Your task to perform on an android device: open a bookmark in the chrome app Image 0: 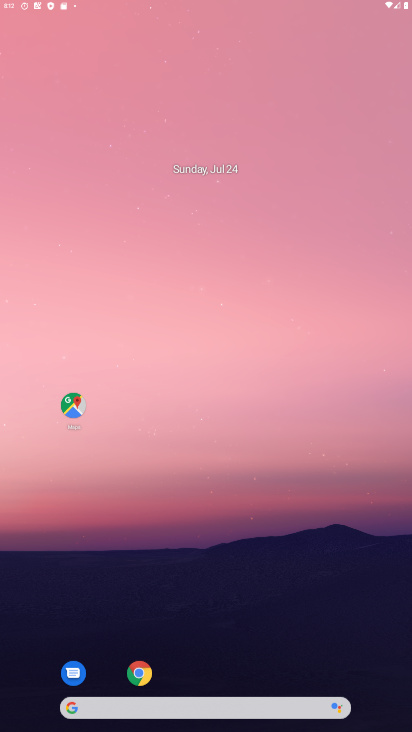
Step 0: drag from (209, 507) to (209, 262)
Your task to perform on an android device: open a bookmark in the chrome app Image 1: 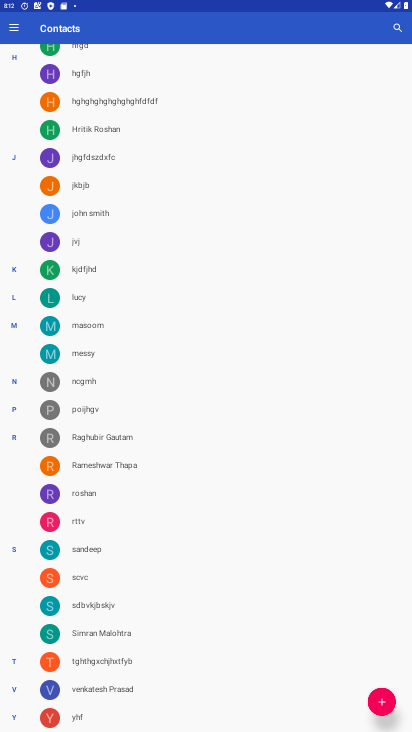
Step 1: drag from (234, 532) to (250, 331)
Your task to perform on an android device: open a bookmark in the chrome app Image 2: 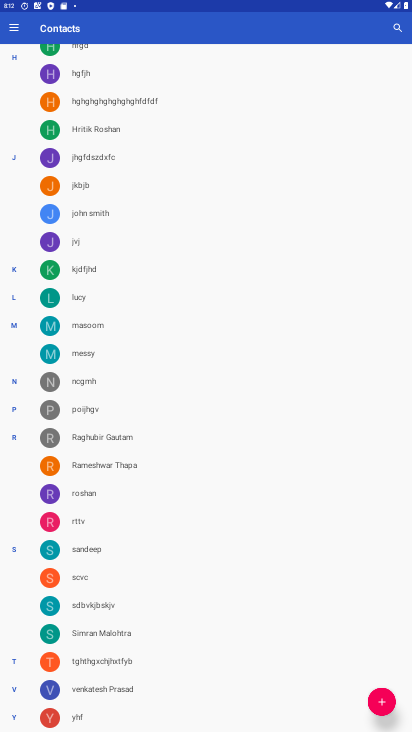
Step 2: press home button
Your task to perform on an android device: open a bookmark in the chrome app Image 3: 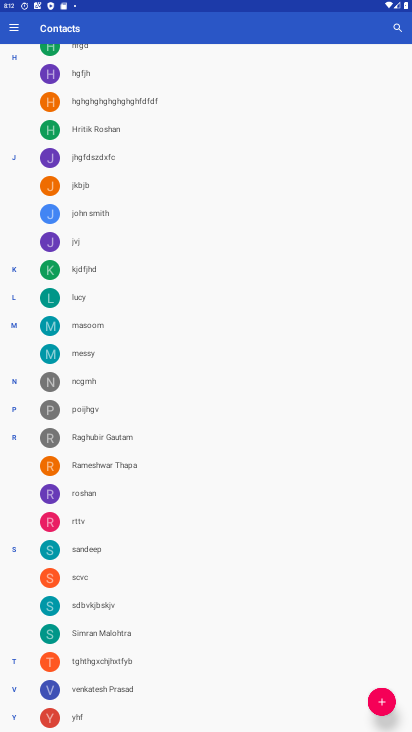
Step 3: press home button
Your task to perform on an android device: open a bookmark in the chrome app Image 4: 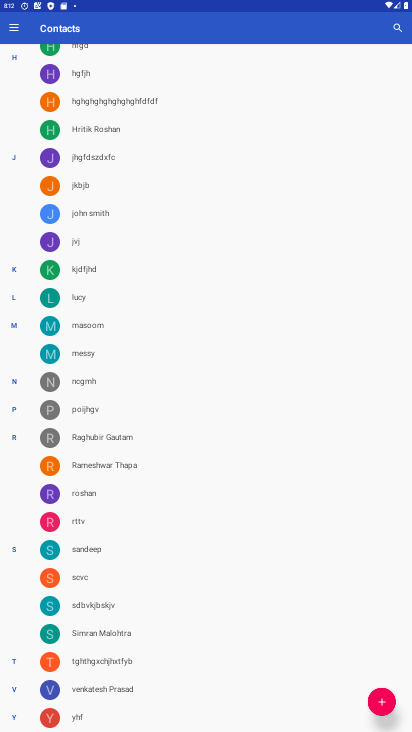
Step 4: drag from (277, 325) to (280, 282)
Your task to perform on an android device: open a bookmark in the chrome app Image 5: 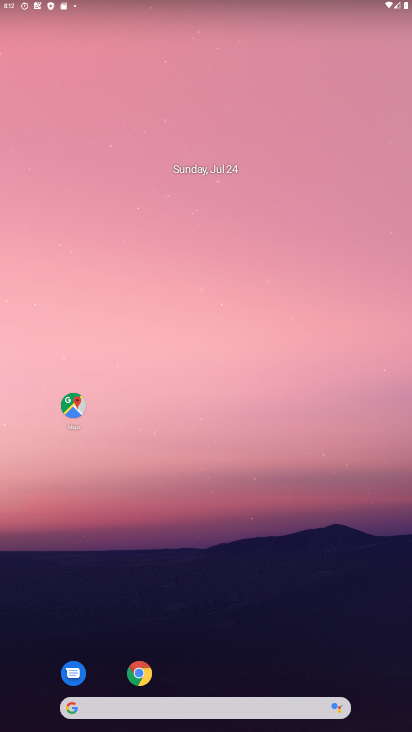
Step 5: drag from (171, 663) to (206, 225)
Your task to perform on an android device: open a bookmark in the chrome app Image 6: 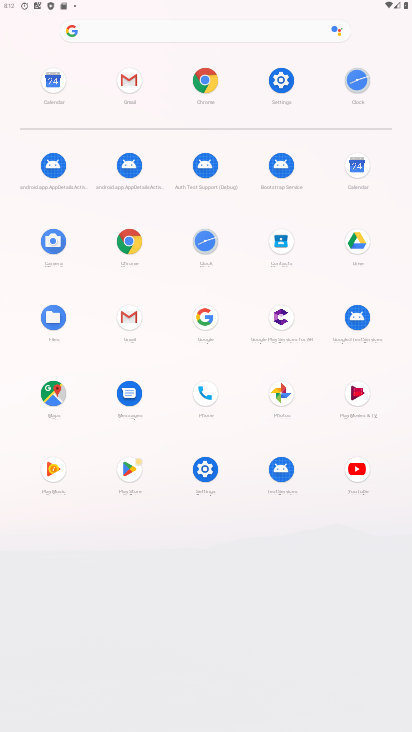
Step 6: drag from (242, 522) to (241, 304)
Your task to perform on an android device: open a bookmark in the chrome app Image 7: 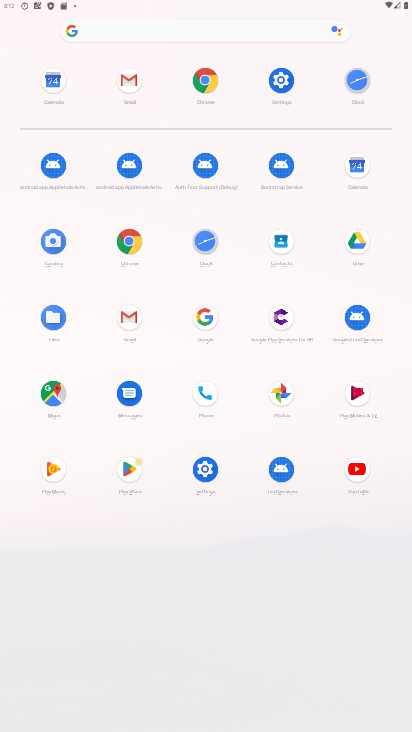
Step 7: drag from (247, 449) to (230, 310)
Your task to perform on an android device: open a bookmark in the chrome app Image 8: 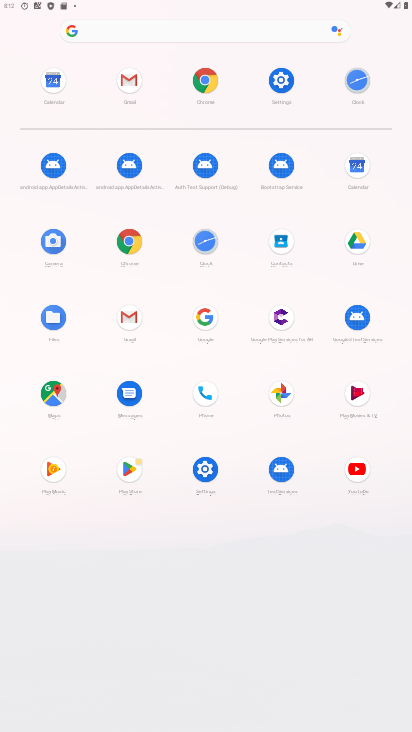
Step 8: drag from (207, 496) to (218, 411)
Your task to perform on an android device: open a bookmark in the chrome app Image 9: 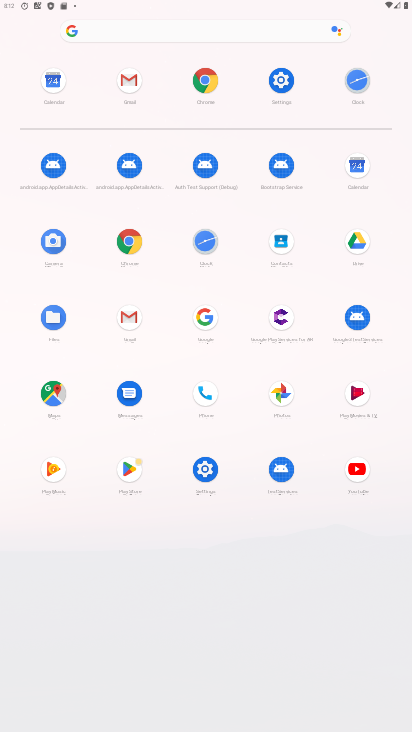
Step 9: click (132, 237)
Your task to perform on an android device: open a bookmark in the chrome app Image 10: 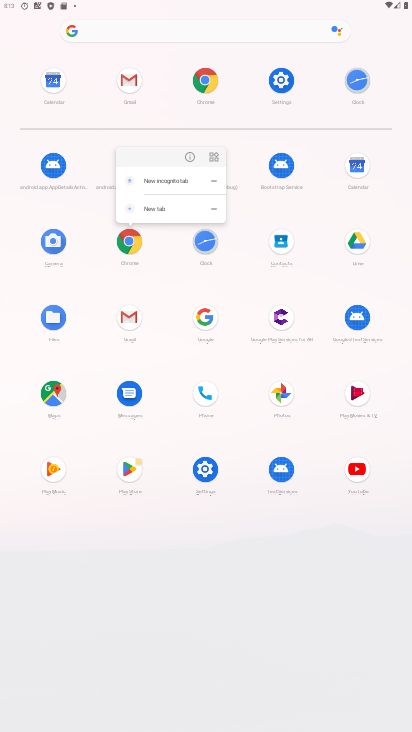
Step 10: click (185, 152)
Your task to perform on an android device: open a bookmark in the chrome app Image 11: 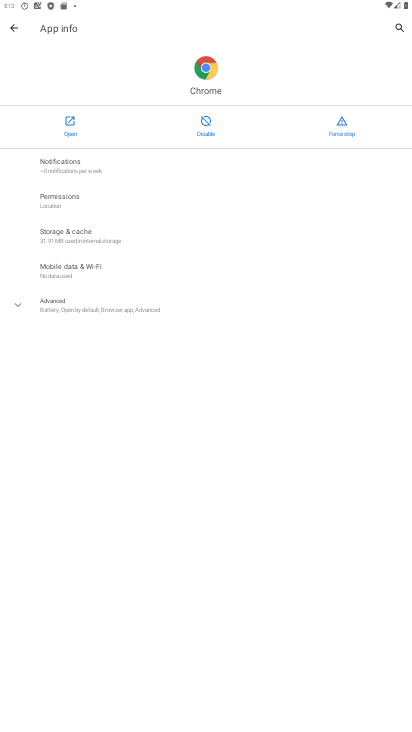
Step 11: click (72, 128)
Your task to perform on an android device: open a bookmark in the chrome app Image 12: 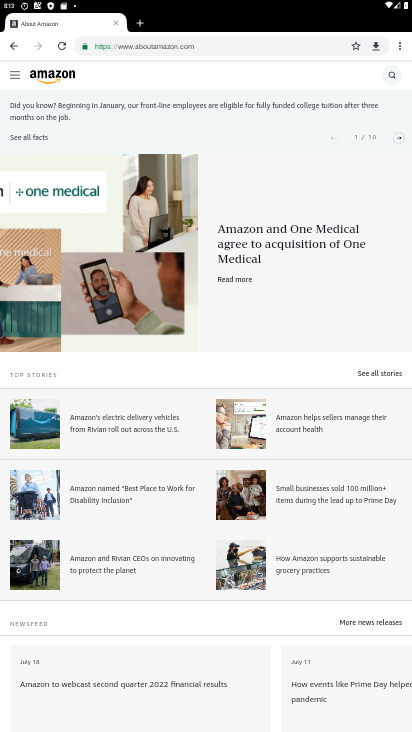
Step 12: task complete